Your task to perform on an android device: Open eBay Image 0: 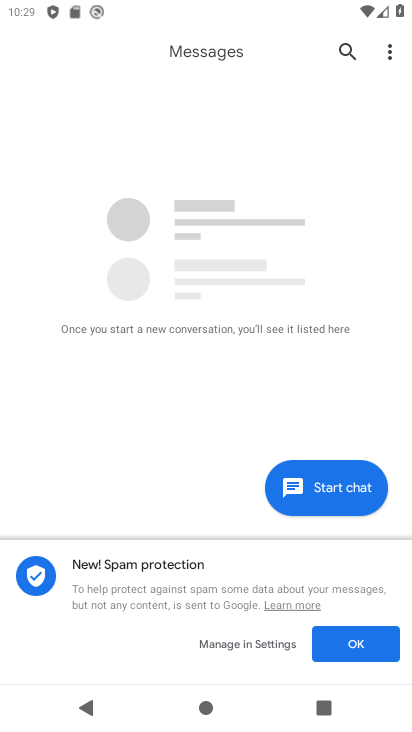
Step 0: press home button
Your task to perform on an android device: Open eBay Image 1: 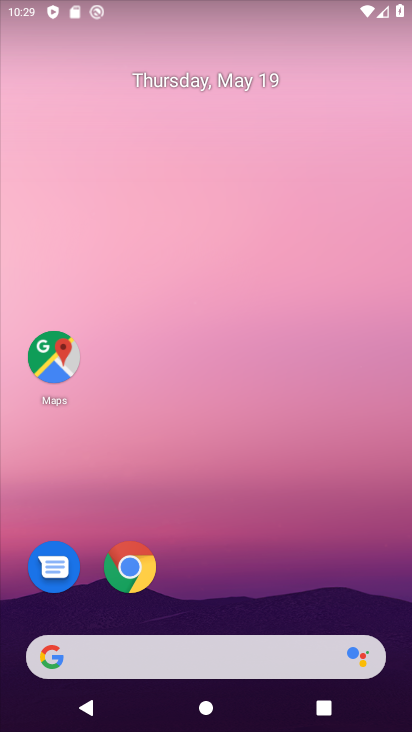
Step 1: click (135, 571)
Your task to perform on an android device: Open eBay Image 2: 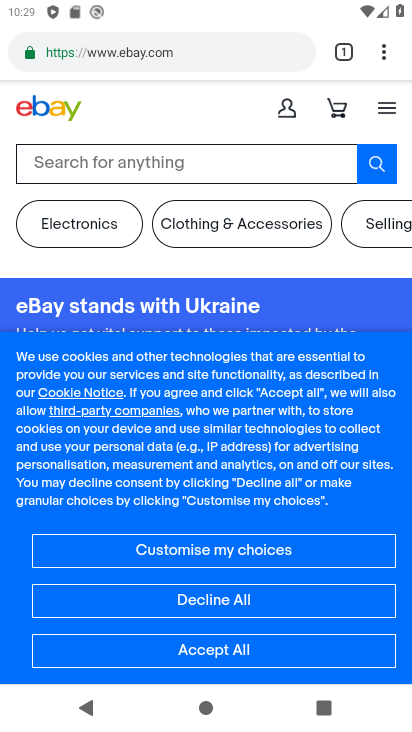
Step 2: click (135, 571)
Your task to perform on an android device: Open eBay Image 3: 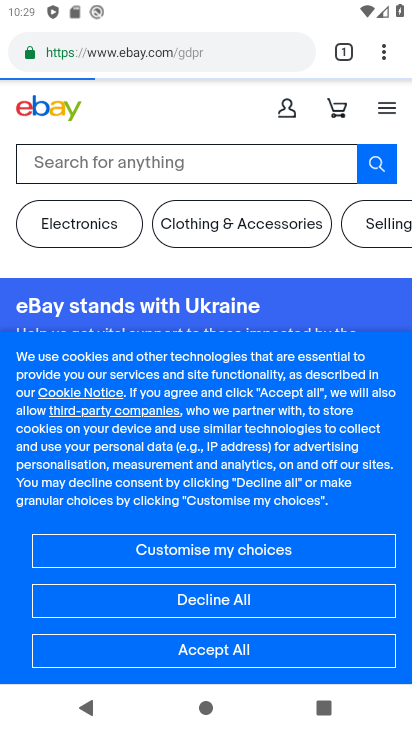
Step 3: task complete